Your task to perform on an android device: turn off notifications in google photos Image 0: 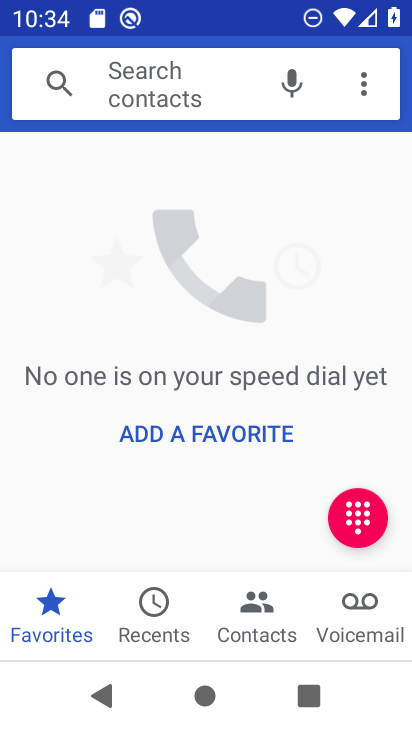
Step 0: press home button
Your task to perform on an android device: turn off notifications in google photos Image 1: 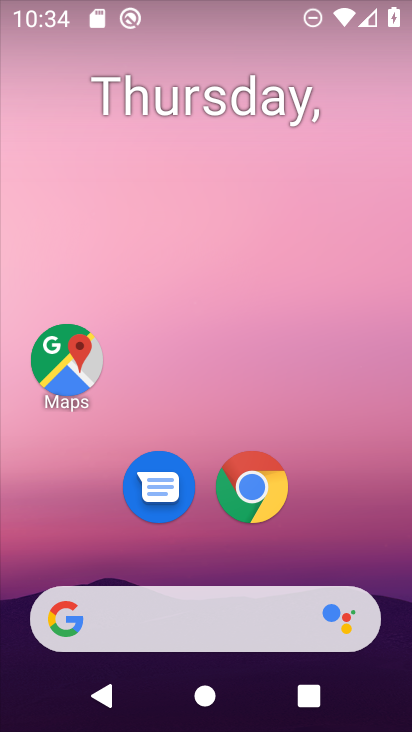
Step 1: drag from (319, 535) to (175, 220)
Your task to perform on an android device: turn off notifications in google photos Image 2: 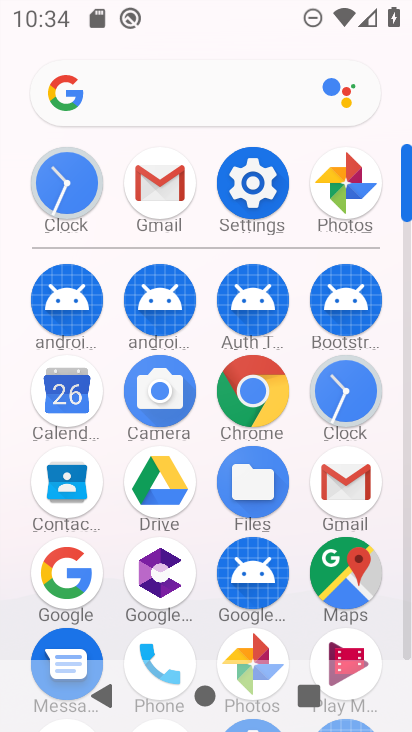
Step 2: click (347, 196)
Your task to perform on an android device: turn off notifications in google photos Image 3: 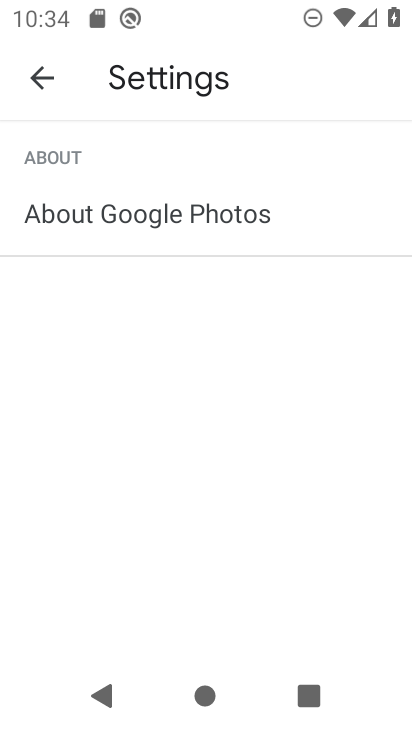
Step 3: click (41, 95)
Your task to perform on an android device: turn off notifications in google photos Image 4: 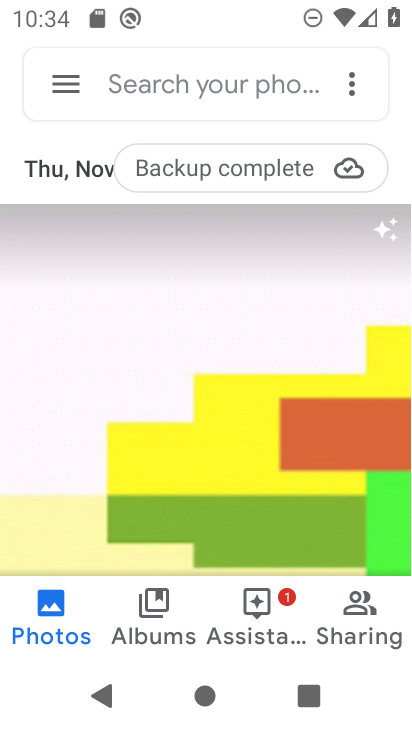
Step 4: click (69, 84)
Your task to perform on an android device: turn off notifications in google photos Image 5: 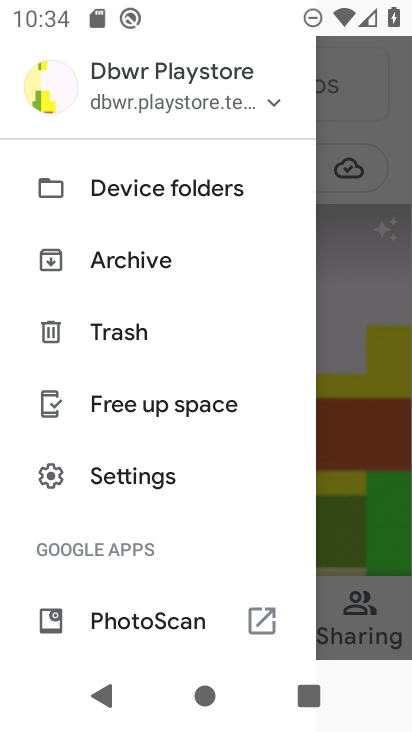
Step 5: click (149, 479)
Your task to perform on an android device: turn off notifications in google photos Image 6: 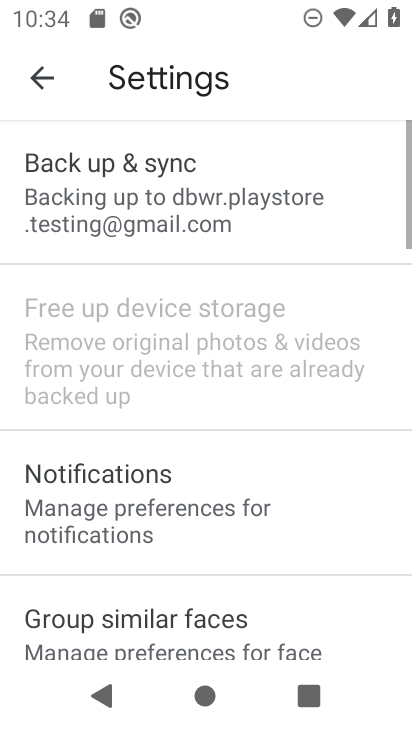
Step 6: click (149, 479)
Your task to perform on an android device: turn off notifications in google photos Image 7: 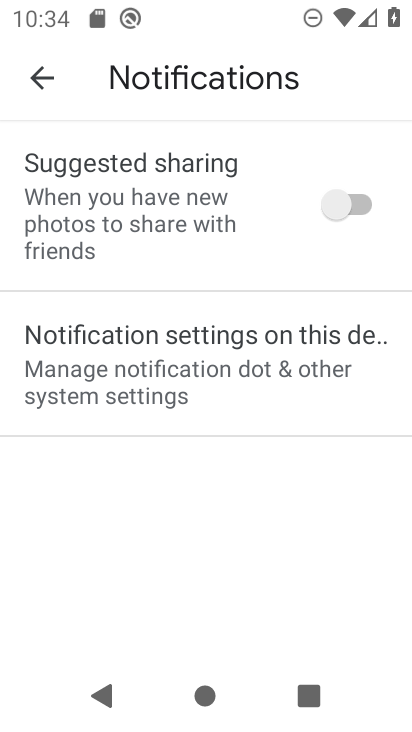
Step 7: click (201, 392)
Your task to perform on an android device: turn off notifications in google photos Image 8: 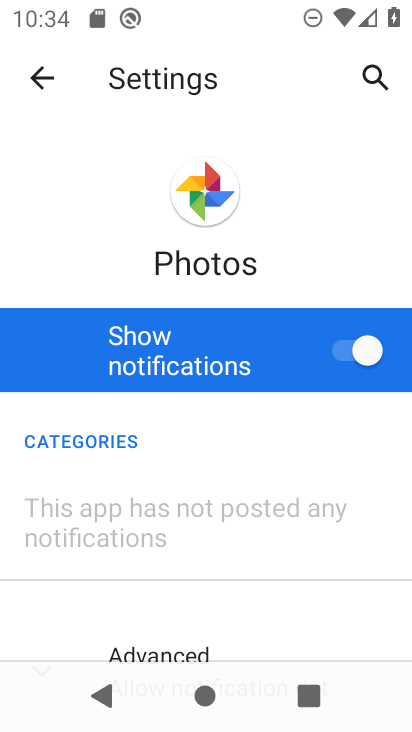
Step 8: click (363, 352)
Your task to perform on an android device: turn off notifications in google photos Image 9: 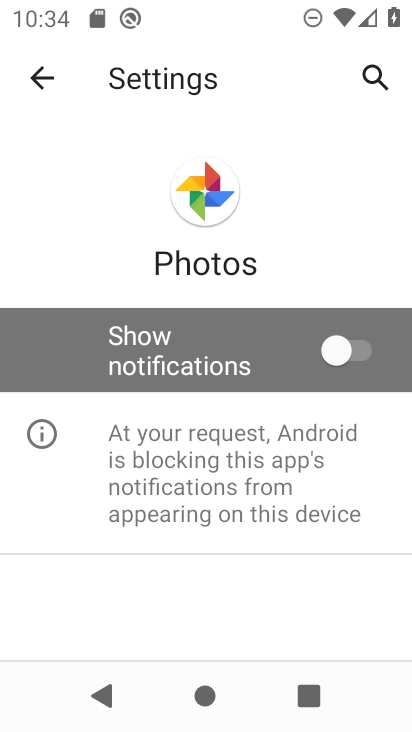
Step 9: task complete